Your task to perform on an android device: Open internet settings Image 0: 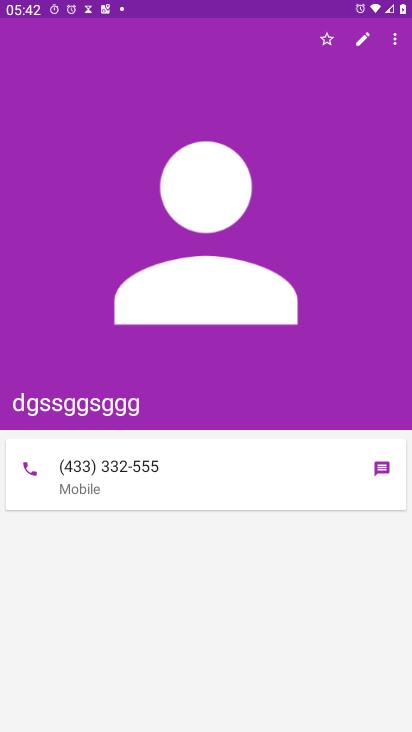
Step 0: press home button
Your task to perform on an android device: Open internet settings Image 1: 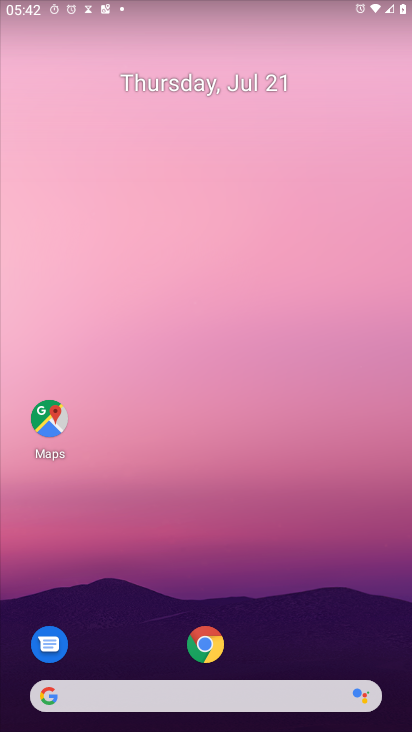
Step 1: drag from (291, 628) to (241, 138)
Your task to perform on an android device: Open internet settings Image 2: 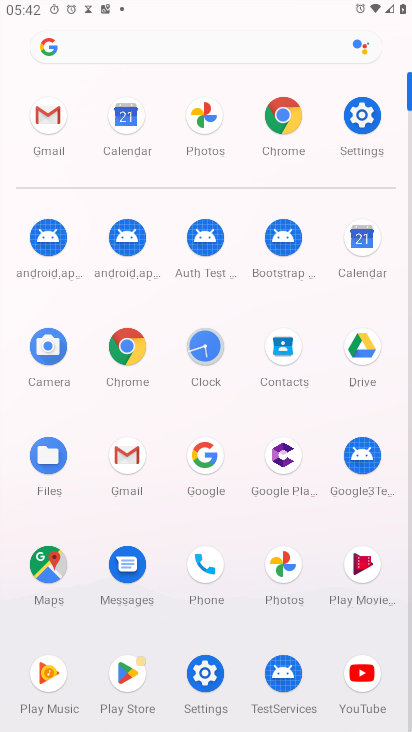
Step 2: click (366, 110)
Your task to perform on an android device: Open internet settings Image 3: 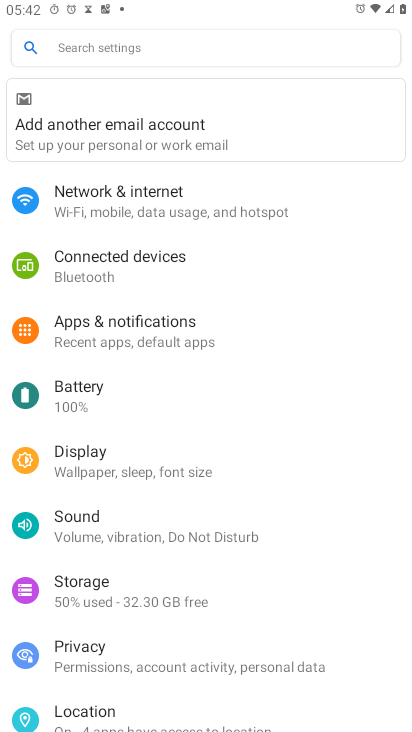
Step 3: click (76, 204)
Your task to perform on an android device: Open internet settings Image 4: 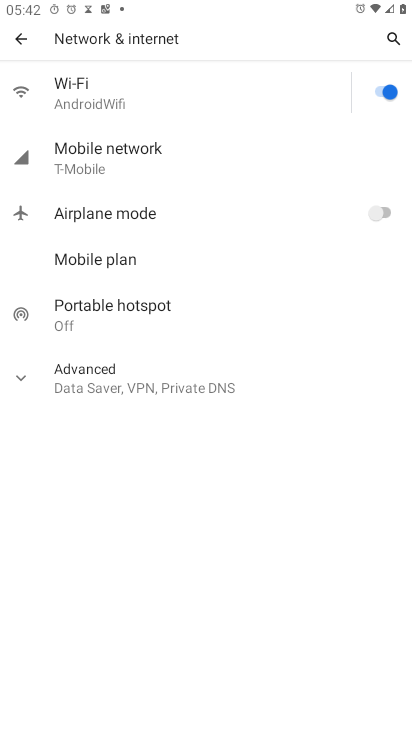
Step 4: task complete